Your task to perform on an android device: Go to display settings Image 0: 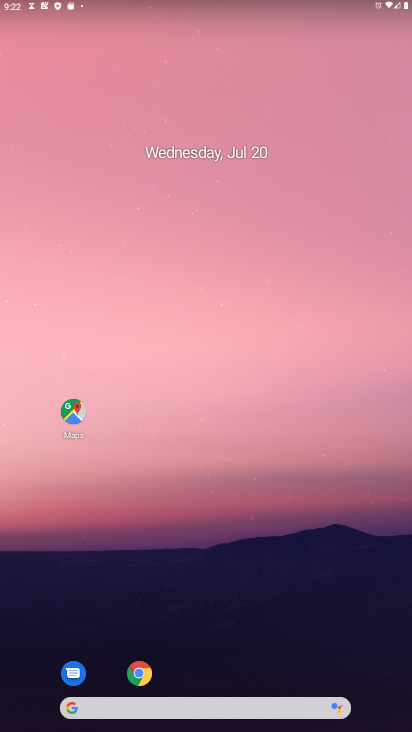
Step 0: drag from (234, 728) to (233, 155)
Your task to perform on an android device: Go to display settings Image 1: 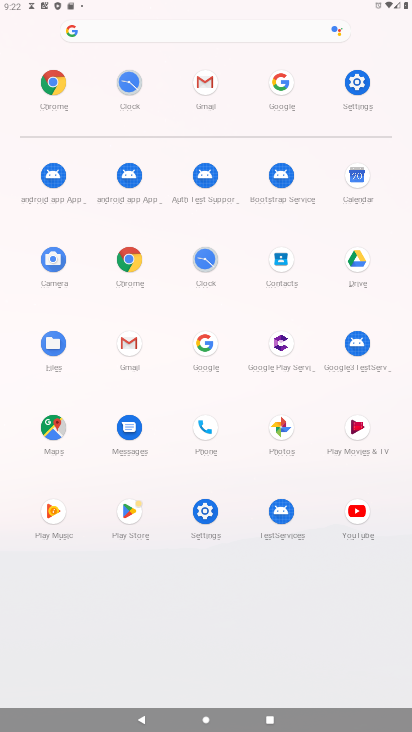
Step 1: click (359, 77)
Your task to perform on an android device: Go to display settings Image 2: 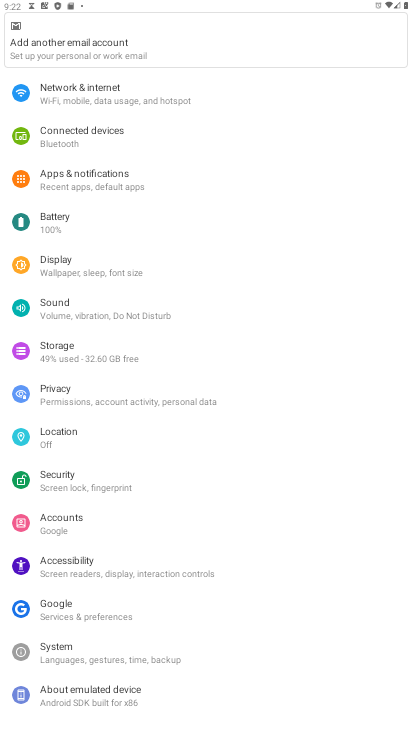
Step 2: click (53, 265)
Your task to perform on an android device: Go to display settings Image 3: 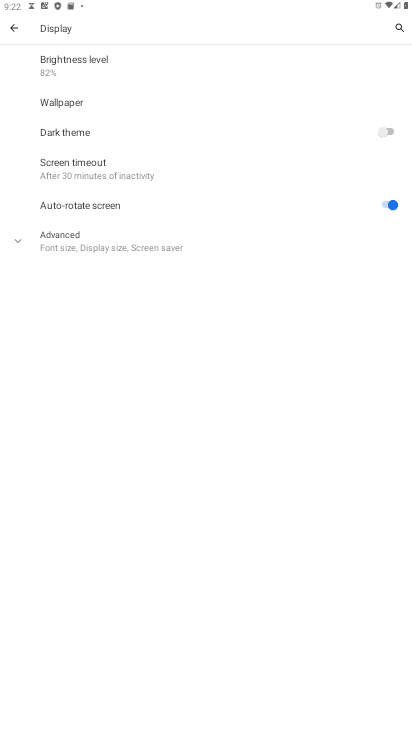
Step 3: task complete